Your task to perform on an android device: clear all cookies in the chrome app Image 0: 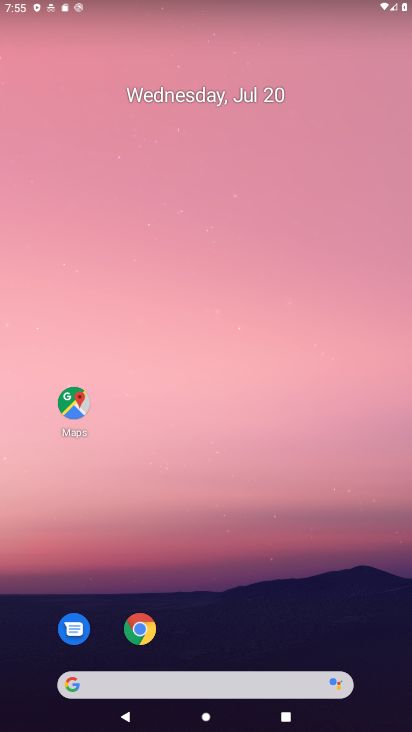
Step 0: drag from (158, 672) to (165, 178)
Your task to perform on an android device: clear all cookies in the chrome app Image 1: 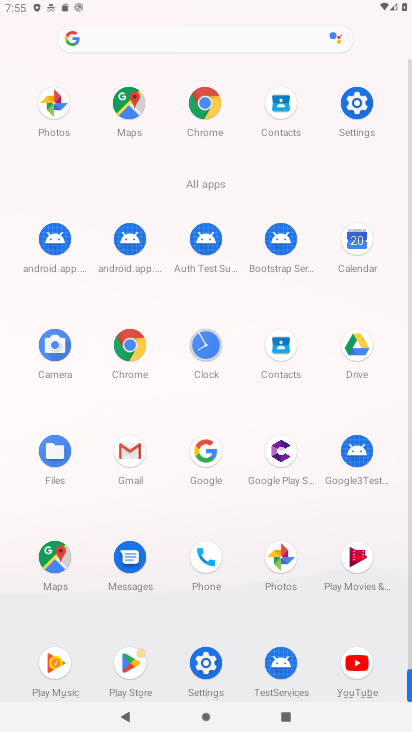
Step 1: click (199, 107)
Your task to perform on an android device: clear all cookies in the chrome app Image 2: 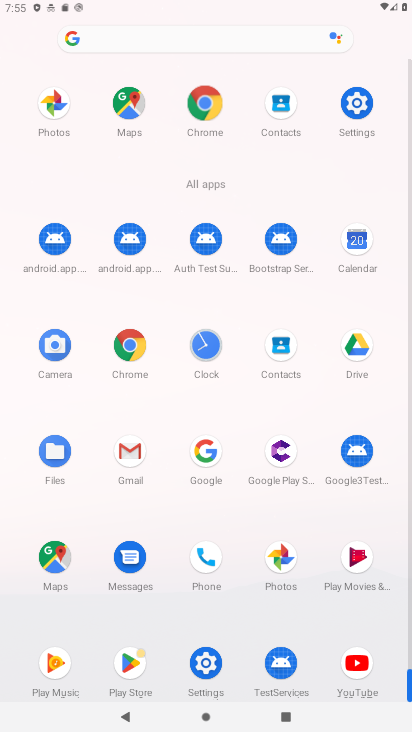
Step 2: click (199, 107)
Your task to perform on an android device: clear all cookies in the chrome app Image 3: 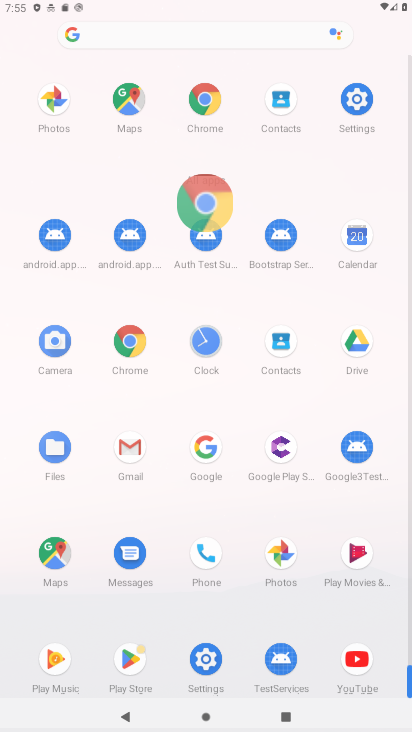
Step 3: click (200, 107)
Your task to perform on an android device: clear all cookies in the chrome app Image 4: 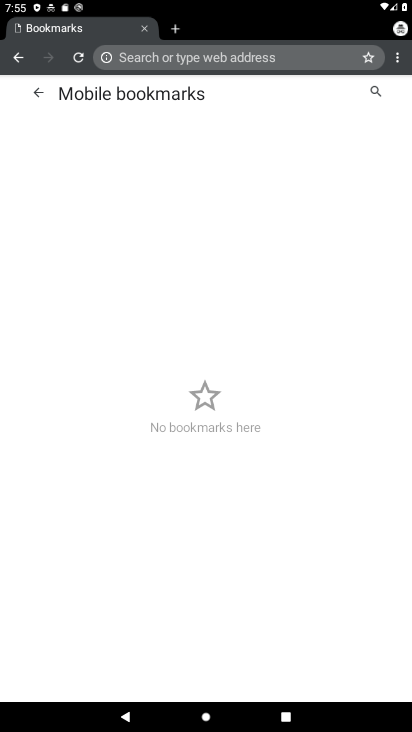
Step 4: drag from (399, 59) to (290, 236)
Your task to perform on an android device: clear all cookies in the chrome app Image 5: 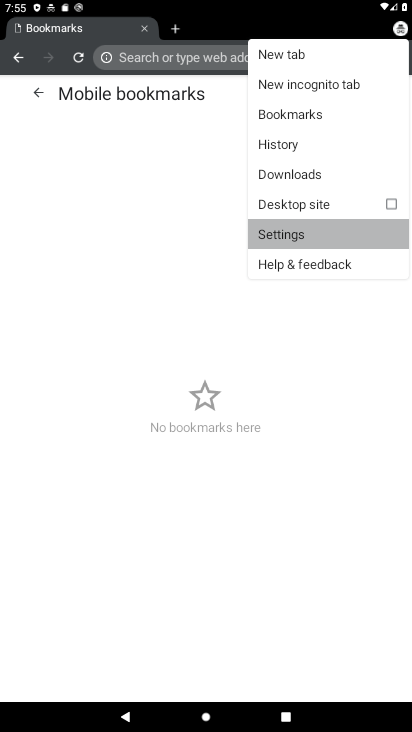
Step 5: click (284, 240)
Your task to perform on an android device: clear all cookies in the chrome app Image 6: 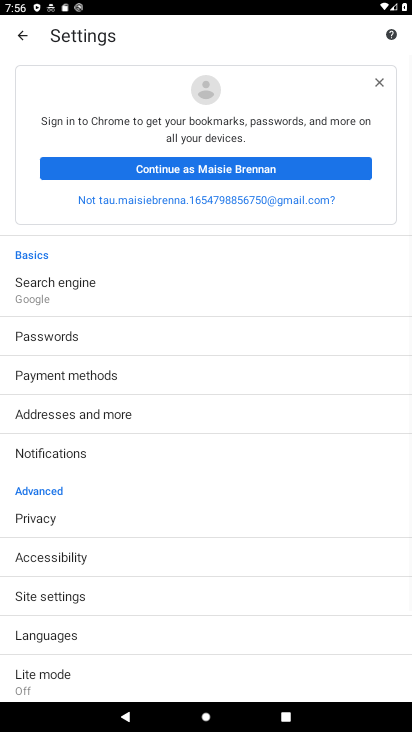
Step 6: drag from (54, 600) to (92, 209)
Your task to perform on an android device: clear all cookies in the chrome app Image 7: 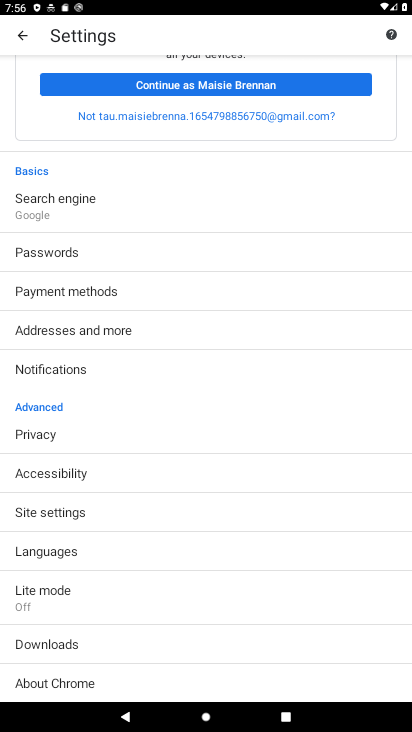
Step 7: click (48, 513)
Your task to perform on an android device: clear all cookies in the chrome app Image 8: 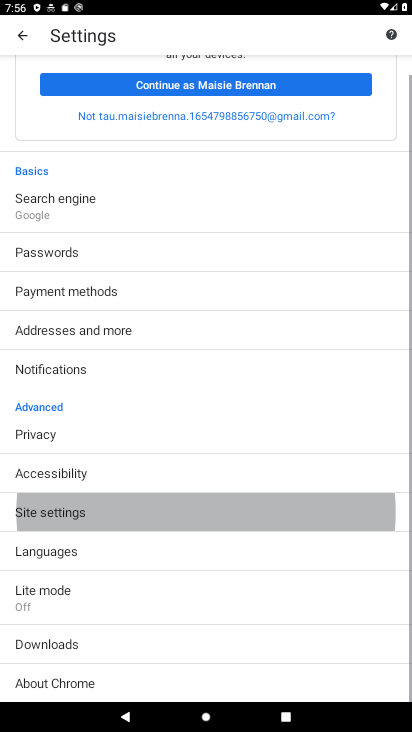
Step 8: click (48, 513)
Your task to perform on an android device: clear all cookies in the chrome app Image 9: 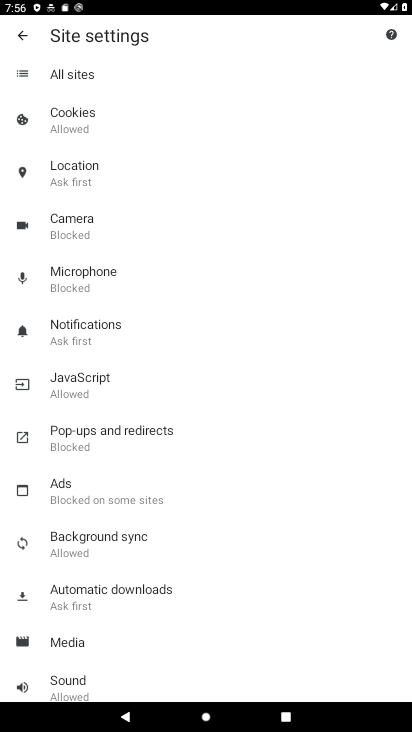
Step 9: click (68, 123)
Your task to perform on an android device: clear all cookies in the chrome app Image 10: 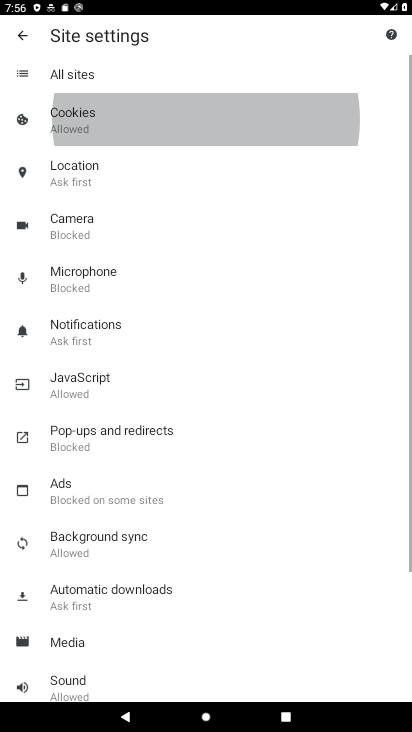
Step 10: click (68, 123)
Your task to perform on an android device: clear all cookies in the chrome app Image 11: 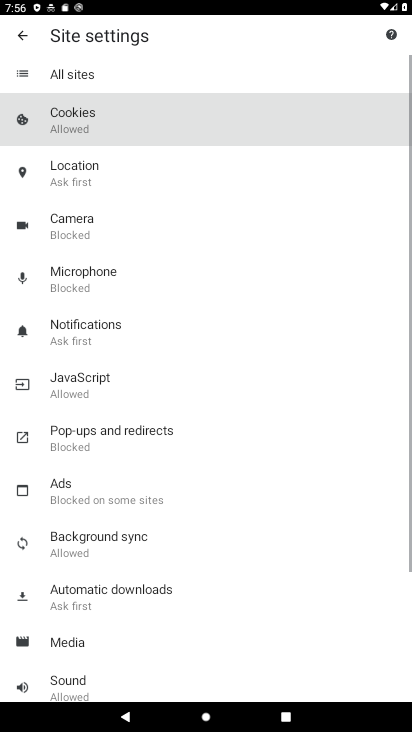
Step 11: click (68, 123)
Your task to perform on an android device: clear all cookies in the chrome app Image 12: 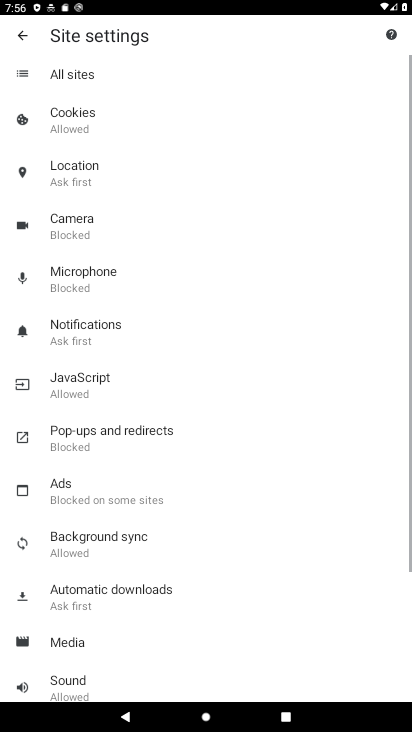
Step 12: click (68, 123)
Your task to perform on an android device: clear all cookies in the chrome app Image 13: 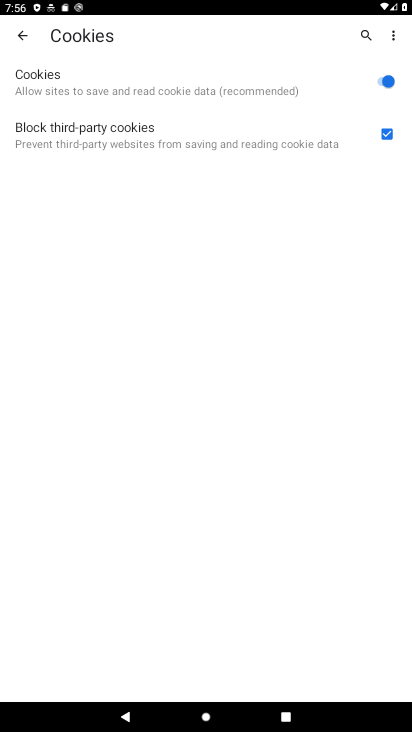
Step 13: click (388, 76)
Your task to perform on an android device: clear all cookies in the chrome app Image 14: 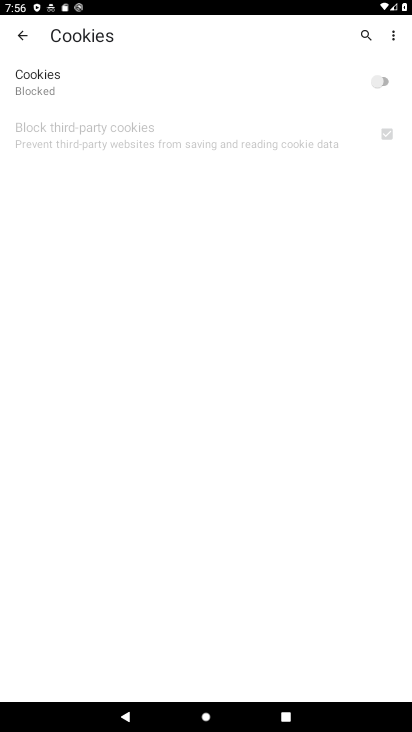
Step 14: task complete